Your task to perform on an android device: Open Google Chrome and click the shortcut for Amazon.com Image 0: 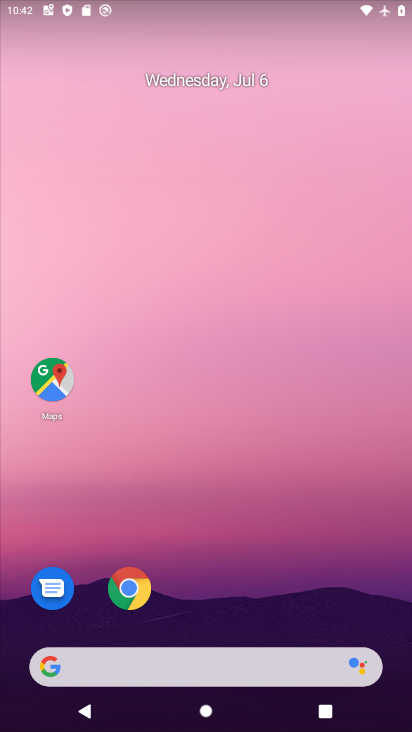
Step 0: drag from (241, 604) to (237, 197)
Your task to perform on an android device: Open Google Chrome and click the shortcut for Amazon.com Image 1: 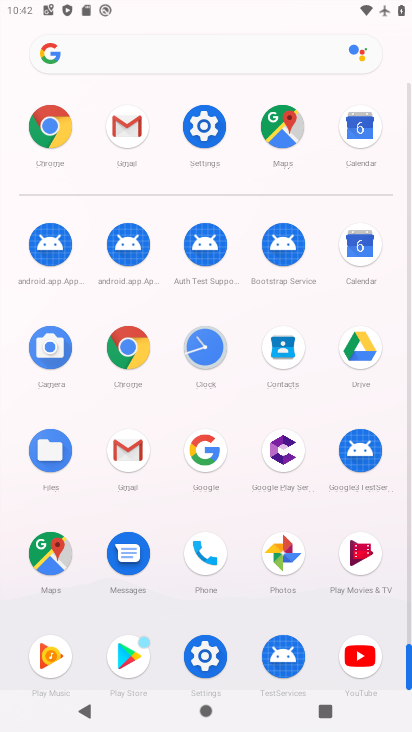
Step 1: click (47, 117)
Your task to perform on an android device: Open Google Chrome and click the shortcut for Amazon.com Image 2: 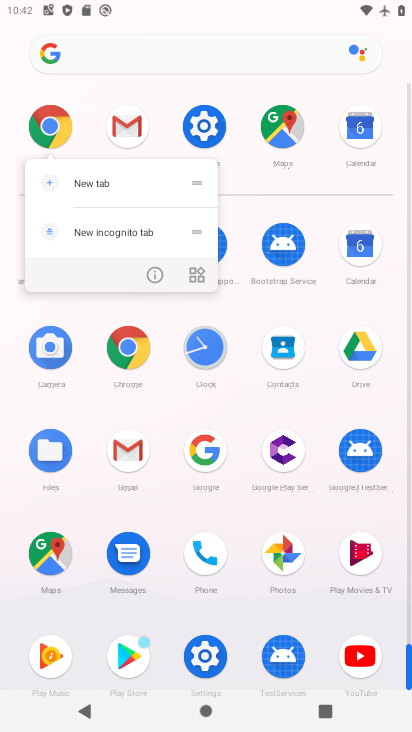
Step 2: click (47, 117)
Your task to perform on an android device: Open Google Chrome and click the shortcut for Amazon.com Image 3: 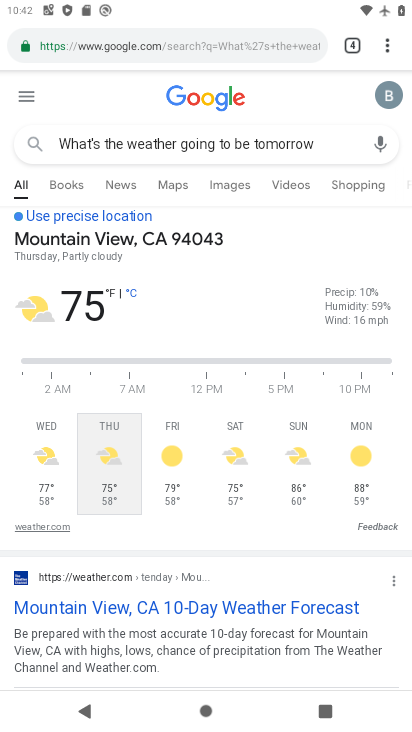
Step 3: click (386, 52)
Your task to perform on an android device: Open Google Chrome and click the shortcut for Amazon.com Image 4: 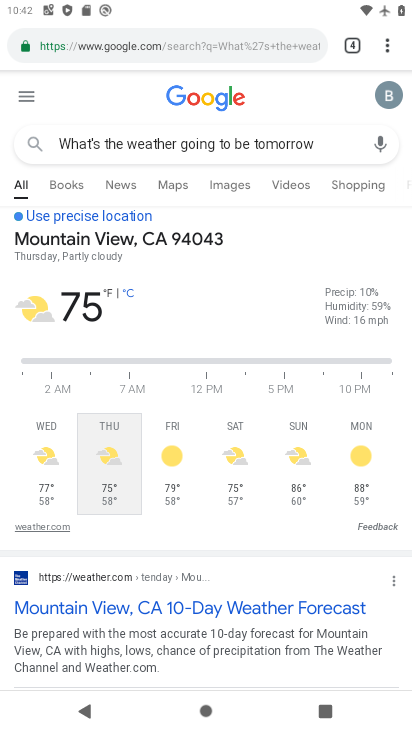
Step 4: click (399, 45)
Your task to perform on an android device: Open Google Chrome and click the shortcut for Amazon.com Image 5: 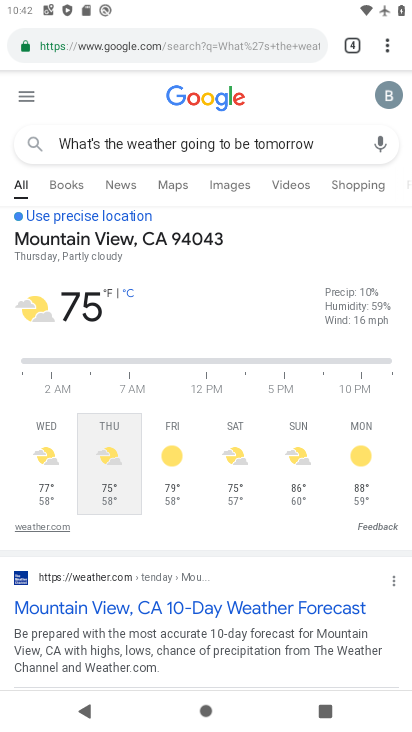
Step 5: click (385, 43)
Your task to perform on an android device: Open Google Chrome and click the shortcut for Amazon.com Image 6: 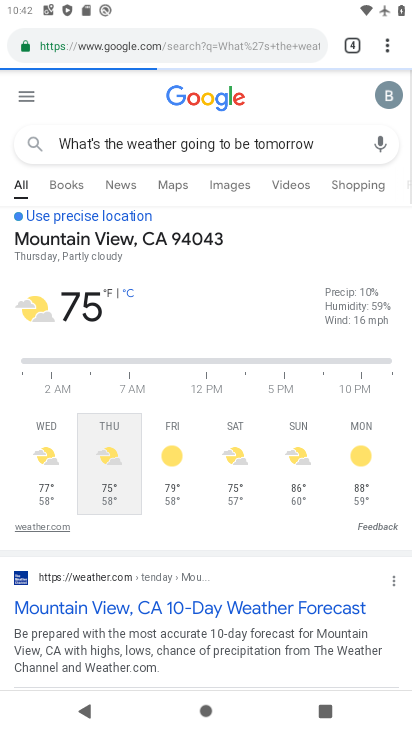
Step 6: click (385, 43)
Your task to perform on an android device: Open Google Chrome and click the shortcut for Amazon.com Image 7: 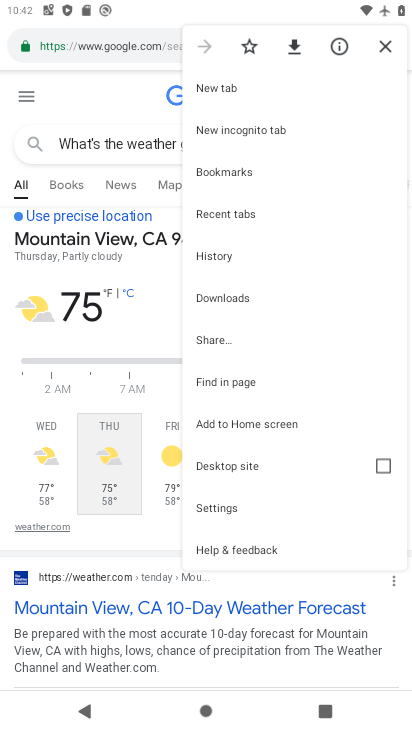
Step 7: click (227, 89)
Your task to perform on an android device: Open Google Chrome and click the shortcut for Amazon.com Image 8: 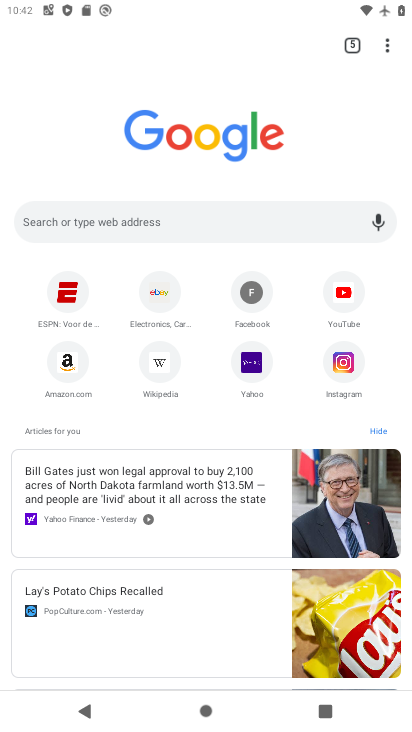
Step 8: click (57, 365)
Your task to perform on an android device: Open Google Chrome and click the shortcut for Amazon.com Image 9: 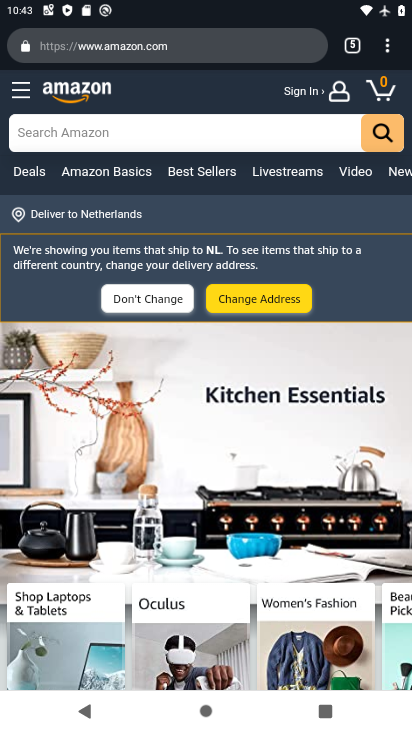
Step 9: task complete